Your task to perform on an android device: Empty the shopping cart on ebay. Search for bose soundlink on ebay, select the first entry, and add it to the cart. Image 0: 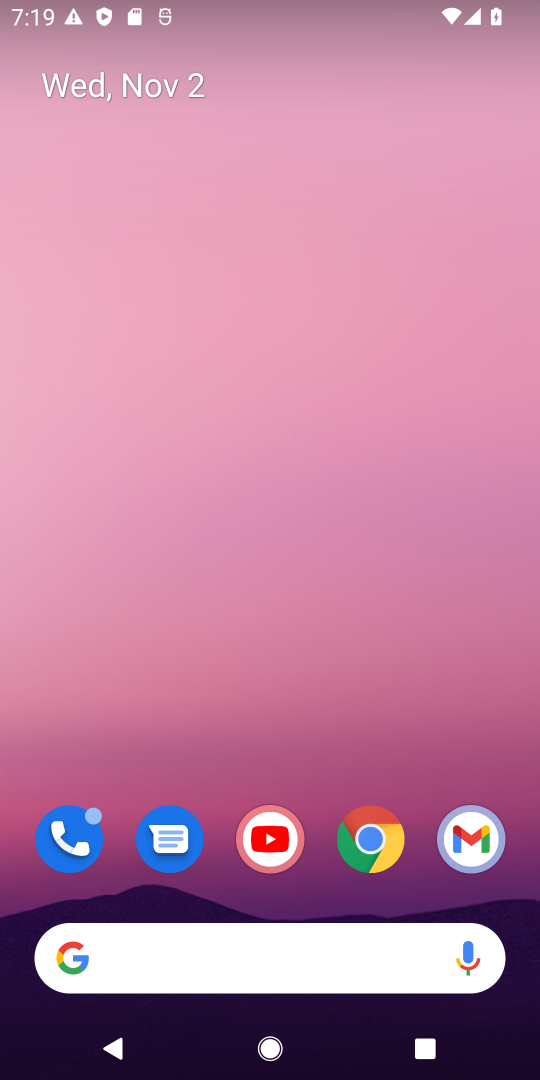
Step 0: click (375, 838)
Your task to perform on an android device: Empty the shopping cart on ebay. Search for bose soundlink on ebay, select the first entry, and add it to the cart. Image 1: 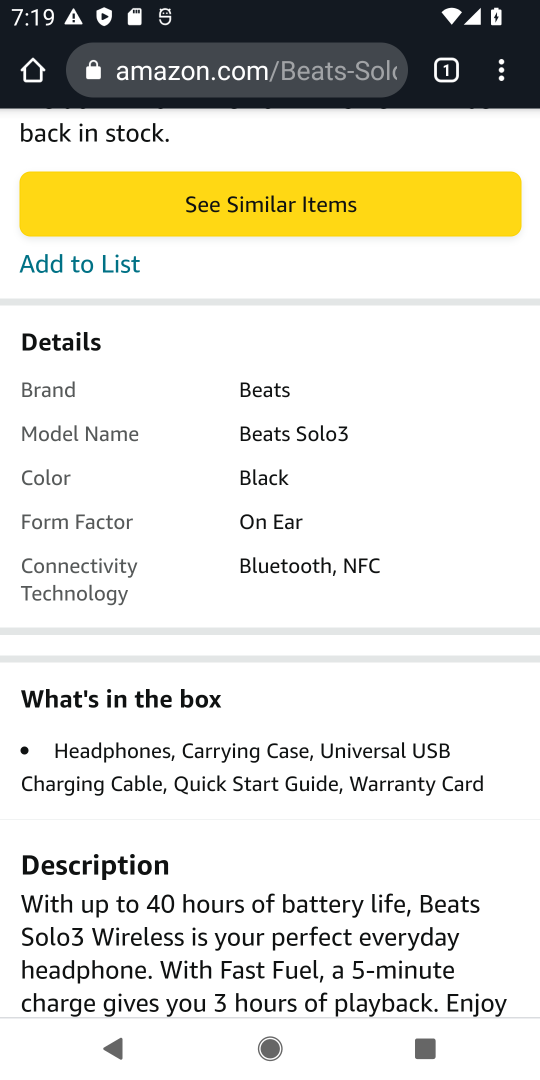
Step 1: click (252, 74)
Your task to perform on an android device: Empty the shopping cart on ebay. Search for bose soundlink on ebay, select the first entry, and add it to the cart. Image 2: 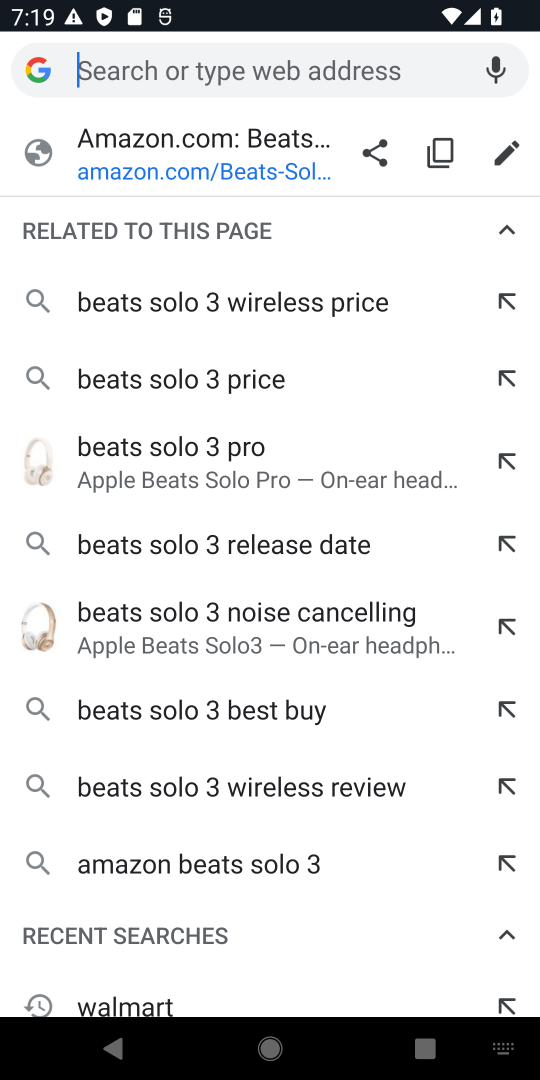
Step 2: type "ebay"
Your task to perform on an android device: Empty the shopping cart on ebay. Search for bose soundlink on ebay, select the first entry, and add it to the cart. Image 3: 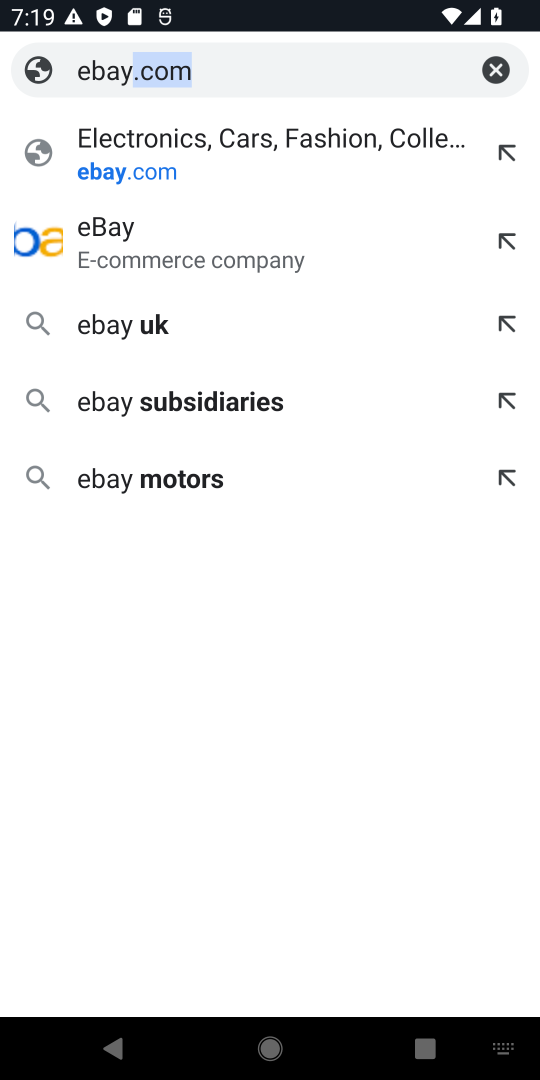
Step 3: click (222, 243)
Your task to perform on an android device: Empty the shopping cart on ebay. Search for bose soundlink on ebay, select the first entry, and add it to the cart. Image 4: 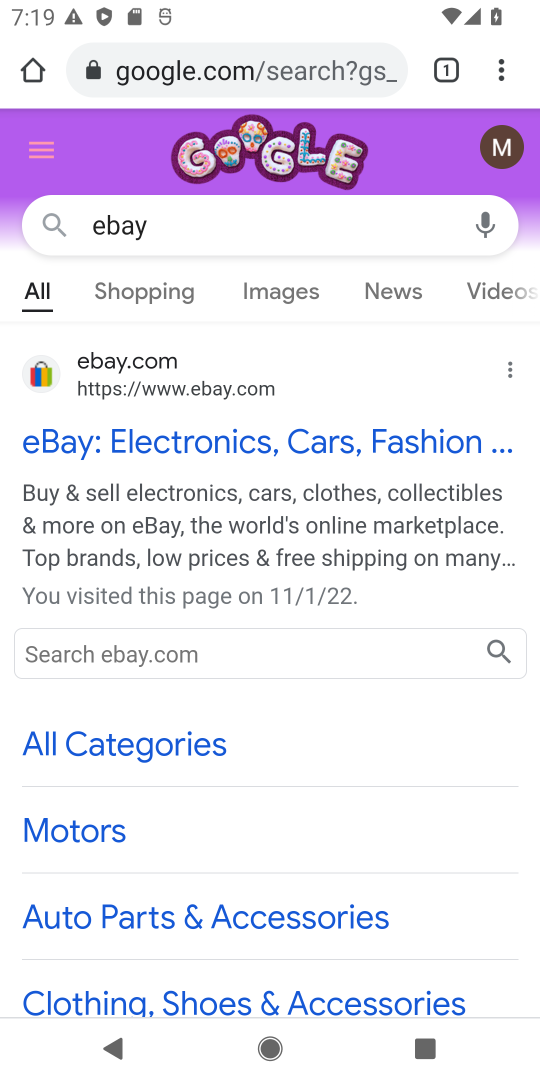
Step 4: click (261, 367)
Your task to perform on an android device: Empty the shopping cart on ebay. Search for bose soundlink on ebay, select the first entry, and add it to the cart. Image 5: 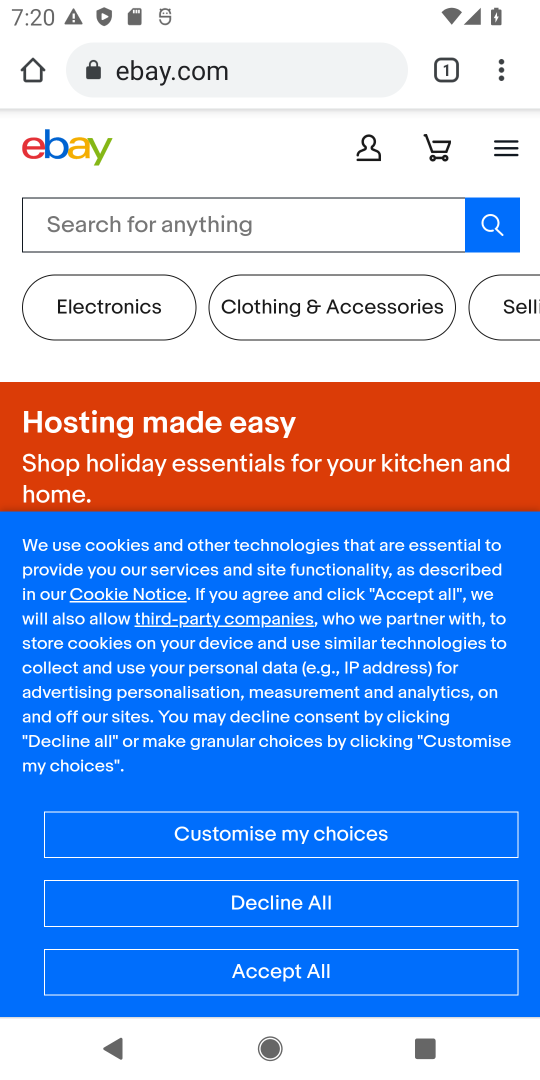
Step 5: click (296, 978)
Your task to perform on an android device: Empty the shopping cart on ebay. Search for bose soundlink on ebay, select the first entry, and add it to the cart. Image 6: 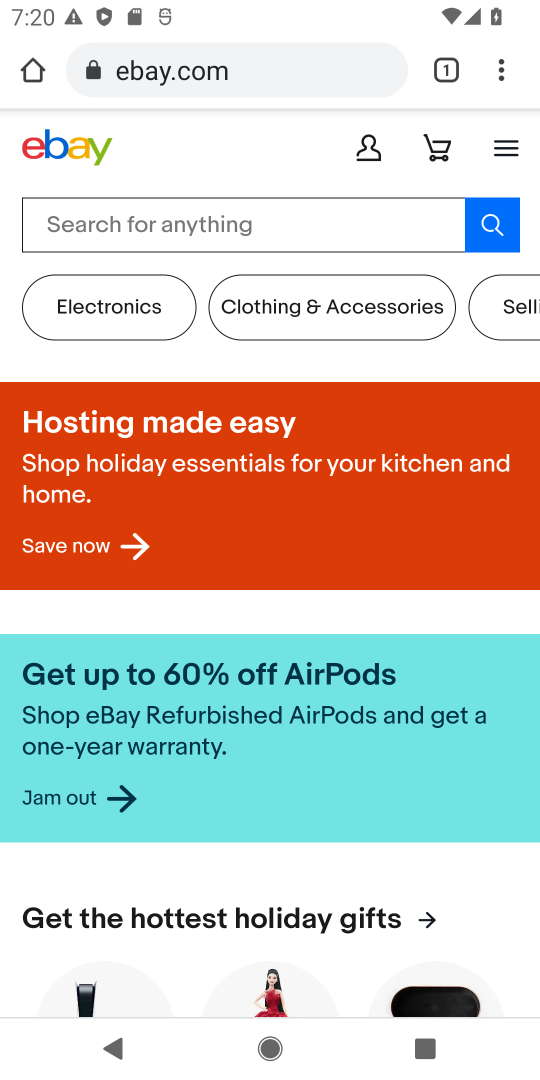
Step 6: click (438, 137)
Your task to perform on an android device: Empty the shopping cart on ebay. Search for bose soundlink on ebay, select the first entry, and add it to the cart. Image 7: 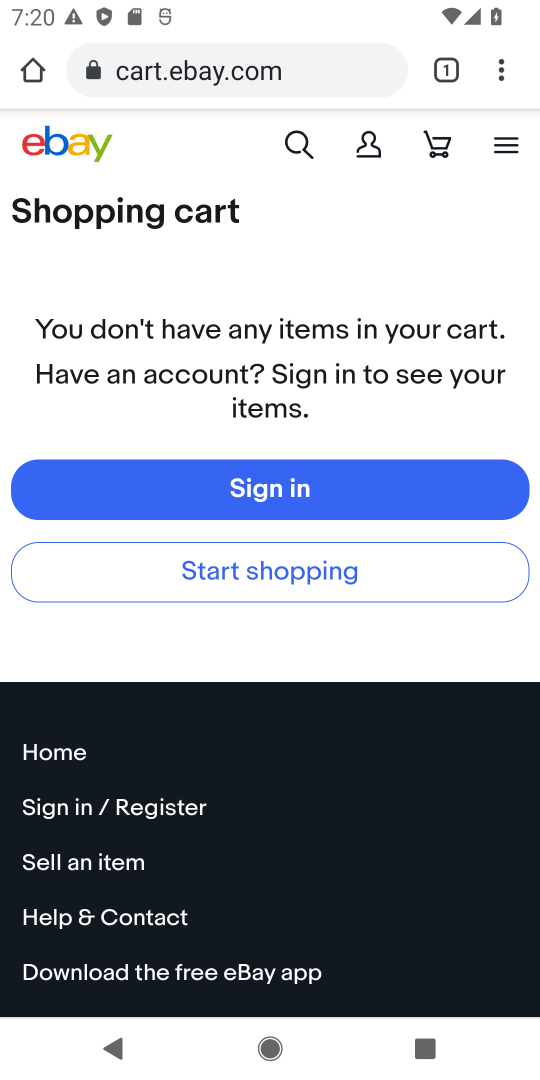
Step 7: click (296, 142)
Your task to perform on an android device: Empty the shopping cart on ebay. Search for bose soundlink on ebay, select the first entry, and add it to the cart. Image 8: 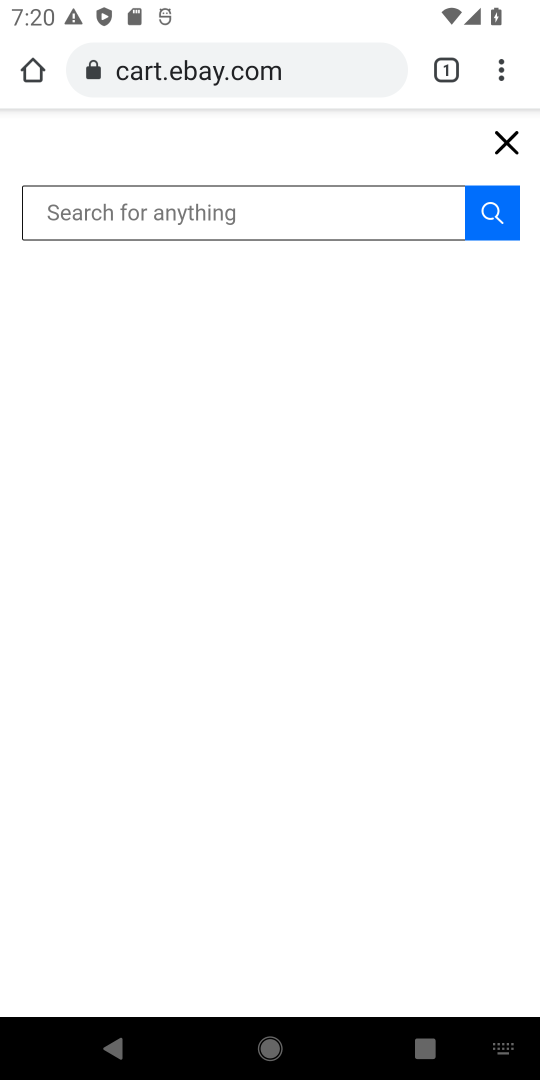
Step 8: click (273, 208)
Your task to perform on an android device: Empty the shopping cart on ebay. Search for bose soundlink on ebay, select the first entry, and add it to the cart. Image 9: 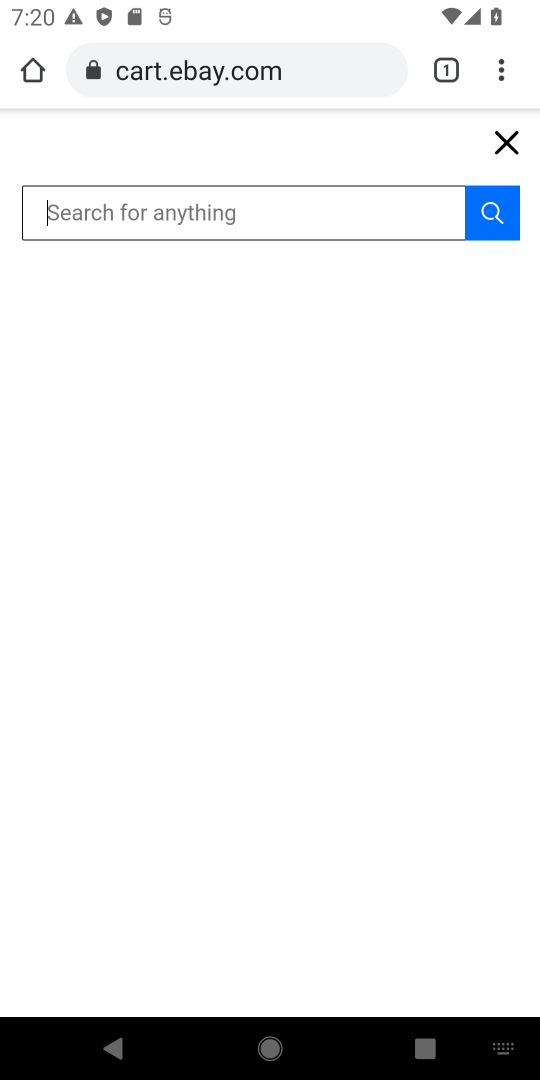
Step 9: type "bose soundlink"
Your task to perform on an android device: Empty the shopping cart on ebay. Search for bose soundlink on ebay, select the first entry, and add it to the cart. Image 10: 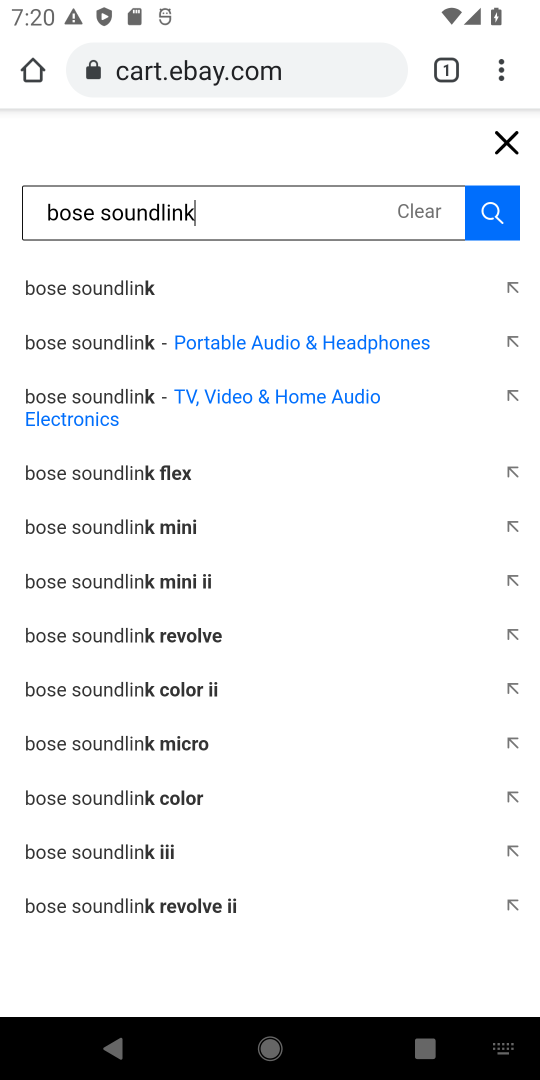
Step 10: click (135, 284)
Your task to perform on an android device: Empty the shopping cart on ebay. Search for bose soundlink on ebay, select the first entry, and add it to the cart. Image 11: 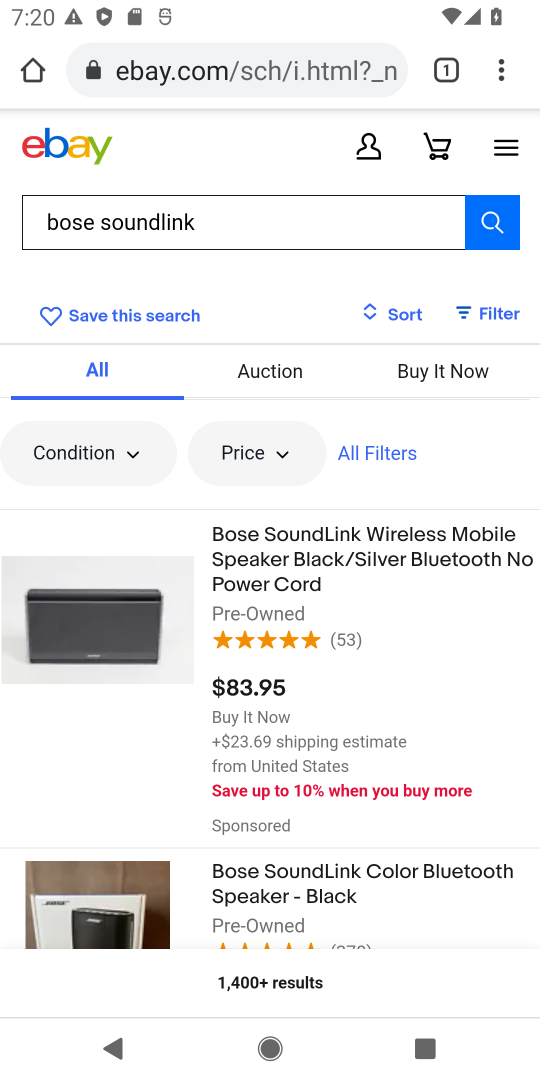
Step 11: click (318, 554)
Your task to perform on an android device: Empty the shopping cart on ebay. Search for bose soundlink on ebay, select the first entry, and add it to the cart. Image 12: 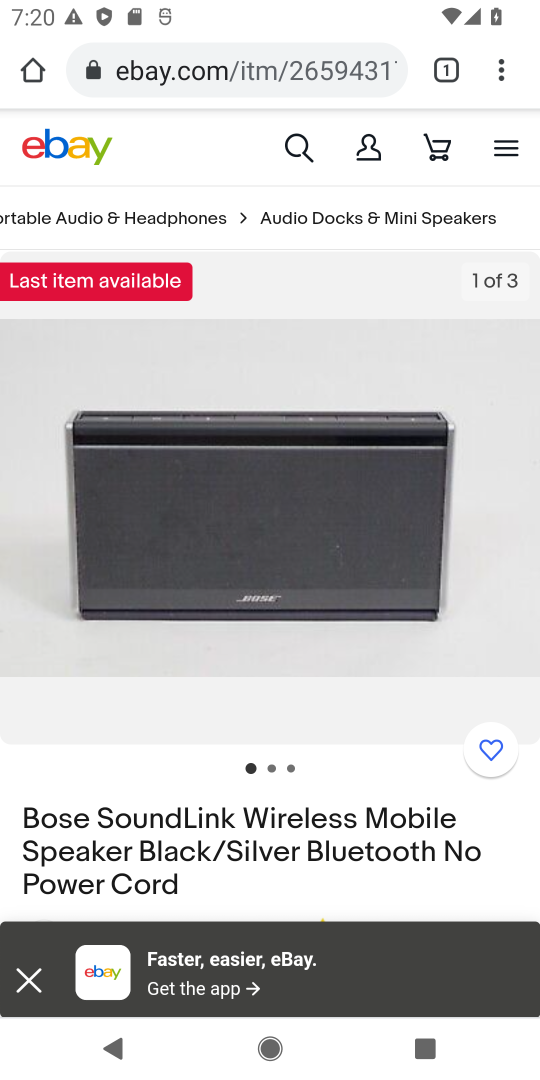
Step 12: drag from (345, 881) to (300, 257)
Your task to perform on an android device: Empty the shopping cart on ebay. Search for bose soundlink on ebay, select the first entry, and add it to the cart. Image 13: 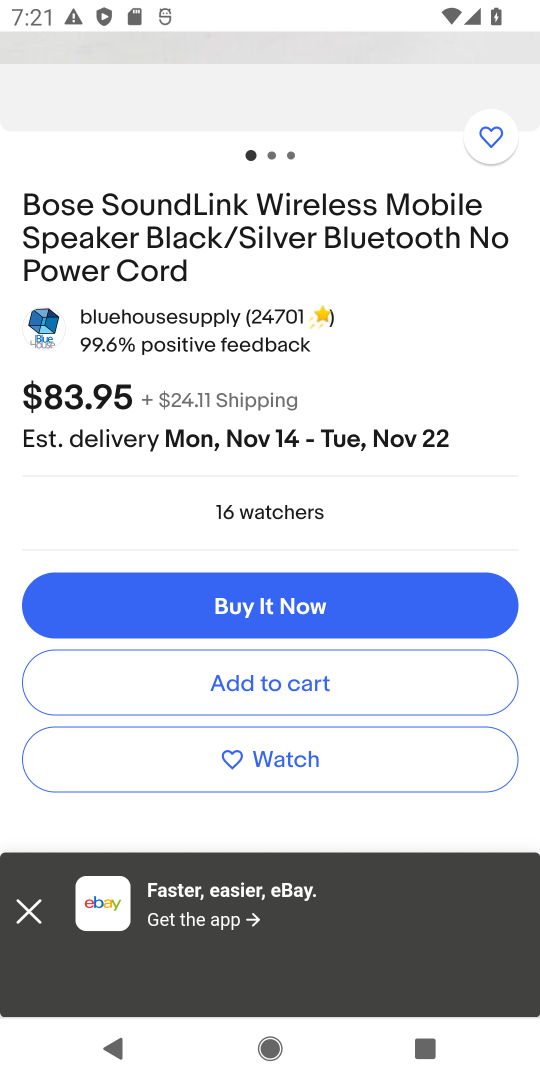
Step 13: click (277, 680)
Your task to perform on an android device: Empty the shopping cart on ebay. Search for bose soundlink on ebay, select the first entry, and add it to the cart. Image 14: 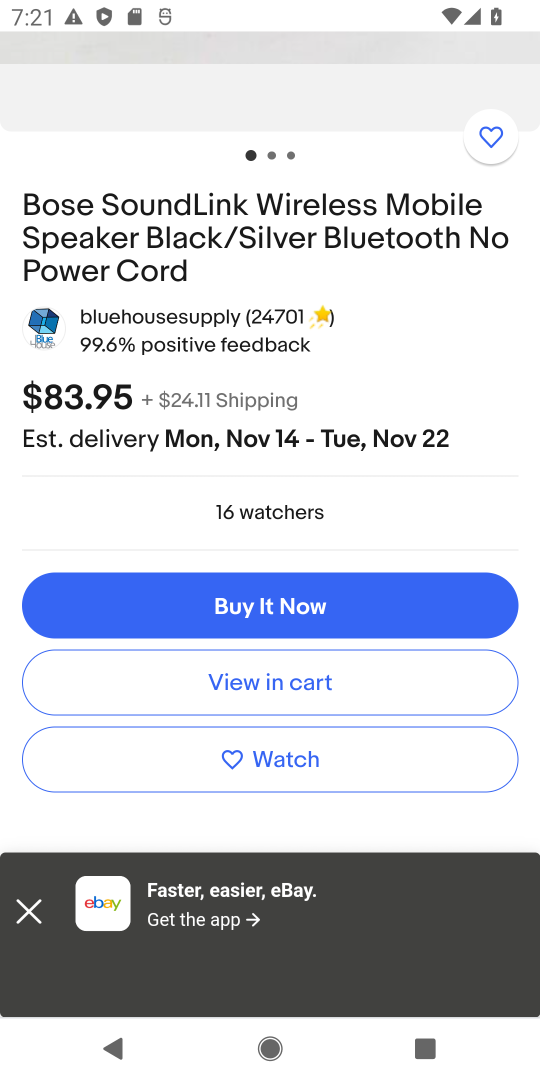
Step 14: click (277, 680)
Your task to perform on an android device: Empty the shopping cart on ebay. Search for bose soundlink on ebay, select the first entry, and add it to the cart. Image 15: 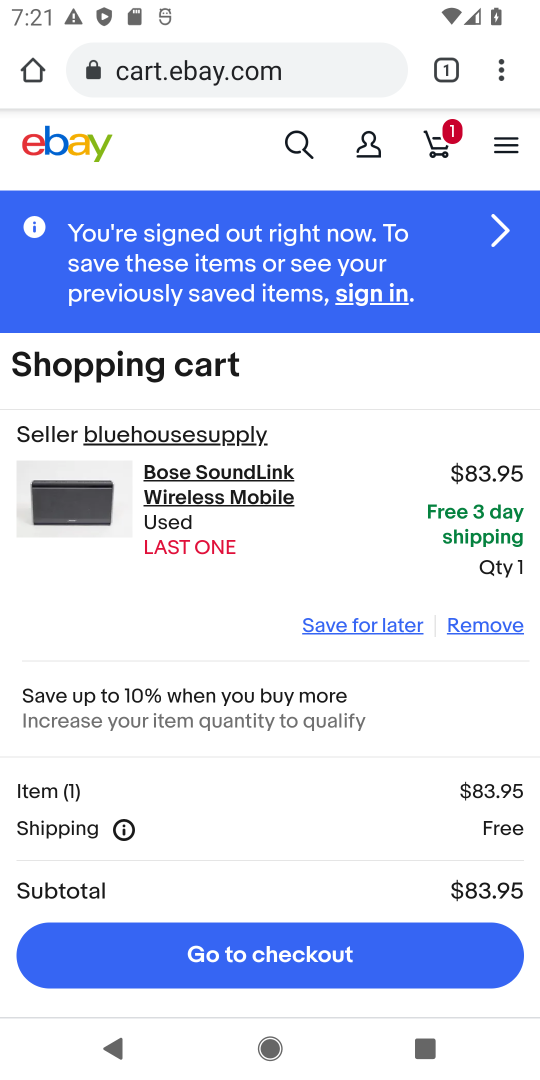
Step 15: task complete